Your task to perform on an android device: move a message to another label in the gmail app Image 0: 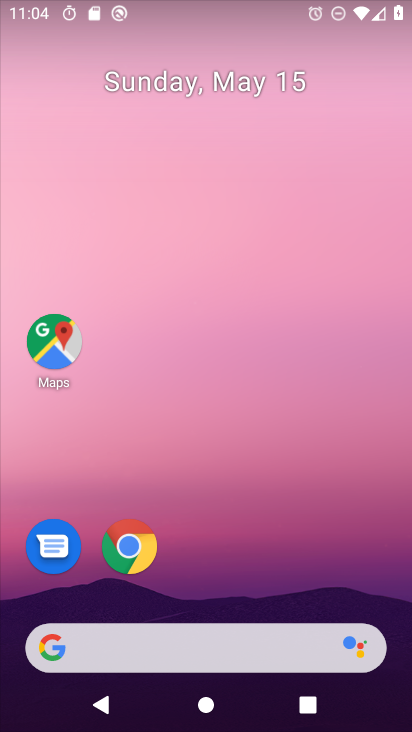
Step 0: drag from (252, 575) to (286, 90)
Your task to perform on an android device: move a message to another label in the gmail app Image 1: 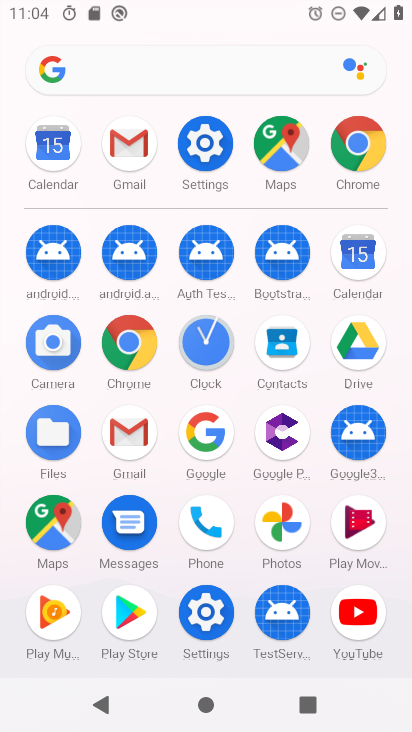
Step 1: click (127, 165)
Your task to perform on an android device: move a message to another label in the gmail app Image 2: 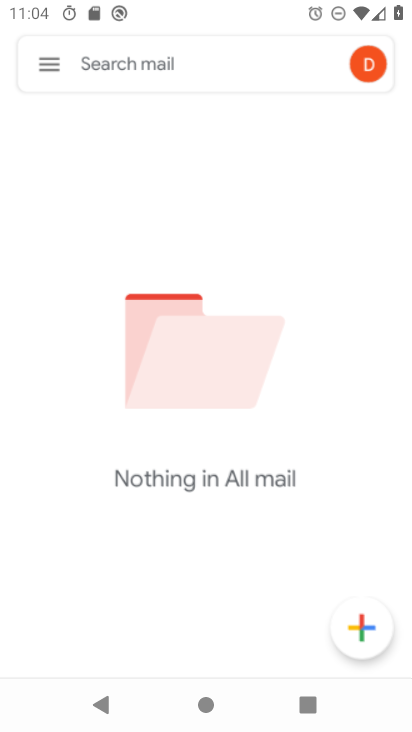
Step 2: click (35, 57)
Your task to perform on an android device: move a message to another label in the gmail app Image 3: 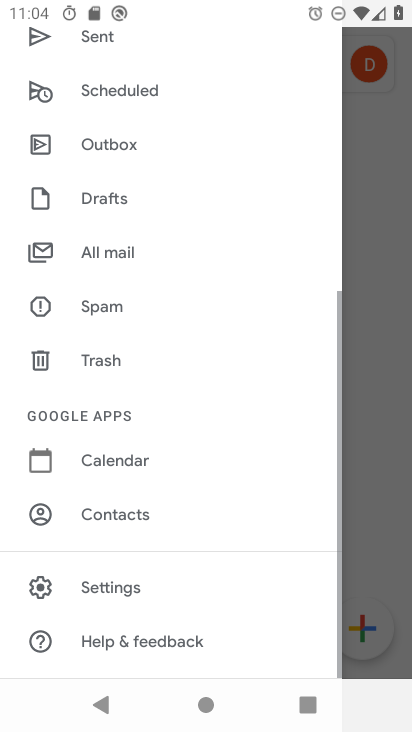
Step 3: drag from (162, 579) to (212, 310)
Your task to perform on an android device: move a message to another label in the gmail app Image 4: 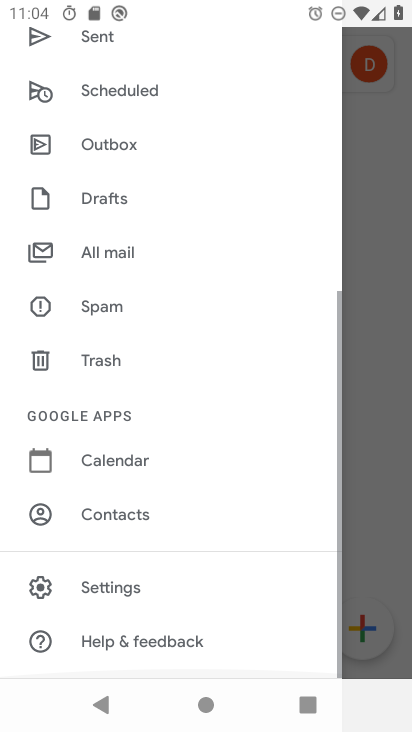
Step 4: click (141, 254)
Your task to perform on an android device: move a message to another label in the gmail app Image 5: 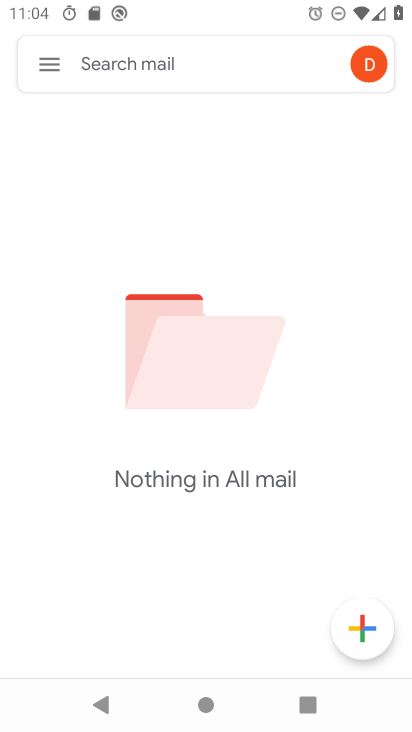
Step 5: task complete